Your task to perform on an android device: Open CNN.com Image 0: 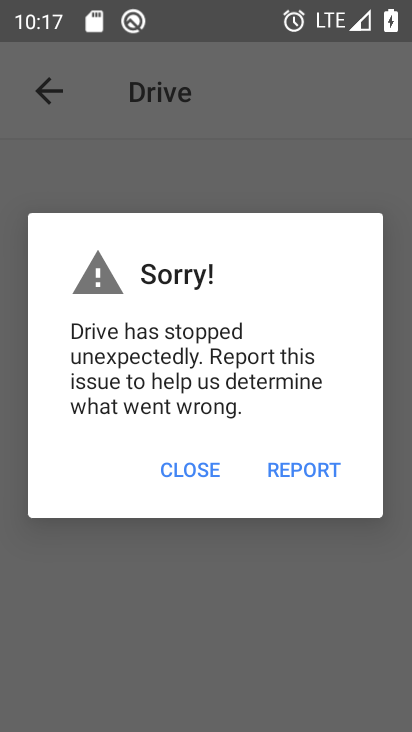
Step 0: press home button
Your task to perform on an android device: Open CNN.com Image 1: 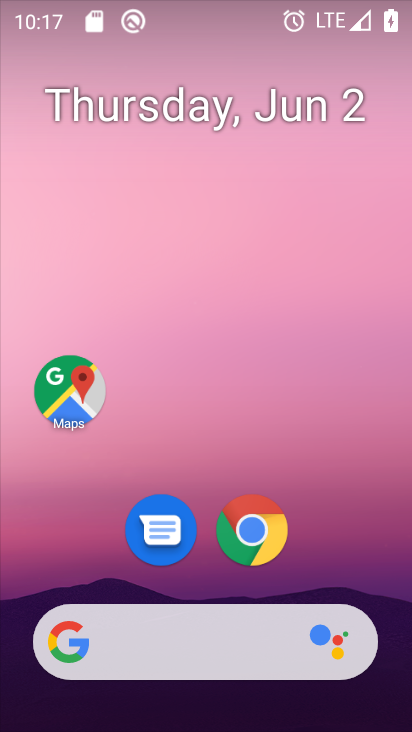
Step 1: drag from (225, 610) to (253, 244)
Your task to perform on an android device: Open CNN.com Image 2: 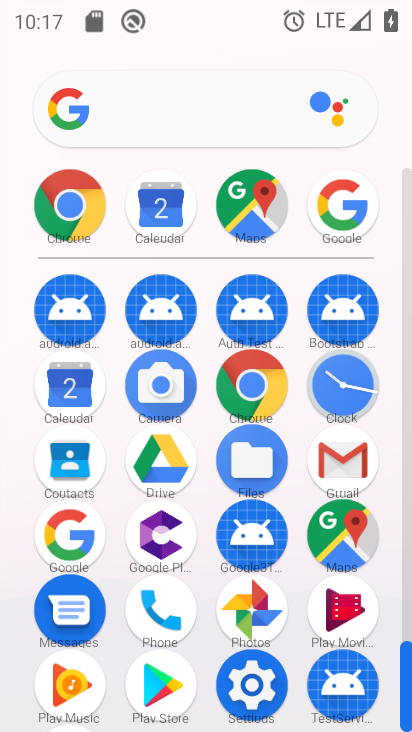
Step 2: click (52, 532)
Your task to perform on an android device: Open CNN.com Image 3: 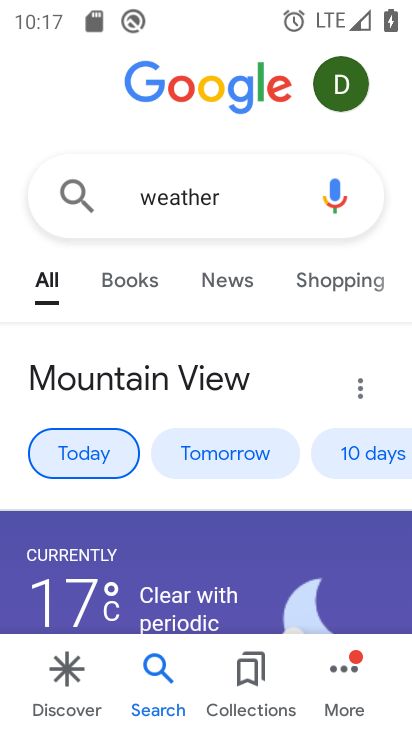
Step 3: click (238, 193)
Your task to perform on an android device: Open CNN.com Image 4: 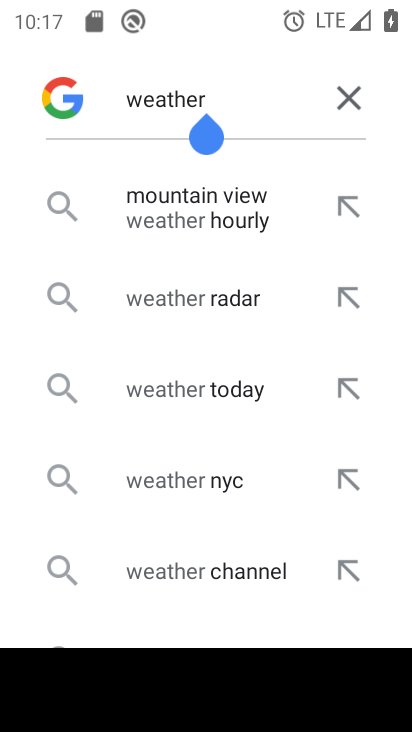
Step 4: click (344, 97)
Your task to perform on an android device: Open CNN.com Image 5: 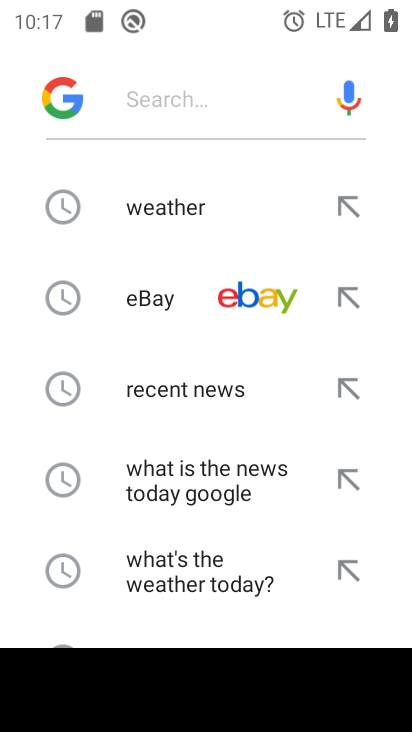
Step 5: drag from (171, 567) to (183, 172)
Your task to perform on an android device: Open CNN.com Image 6: 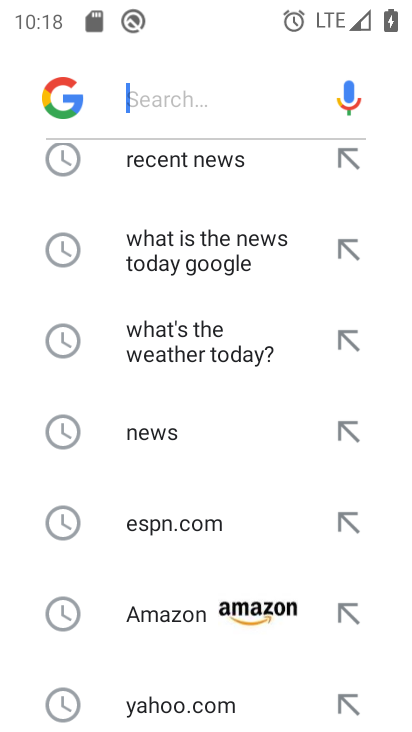
Step 6: drag from (162, 676) to (192, 327)
Your task to perform on an android device: Open CNN.com Image 7: 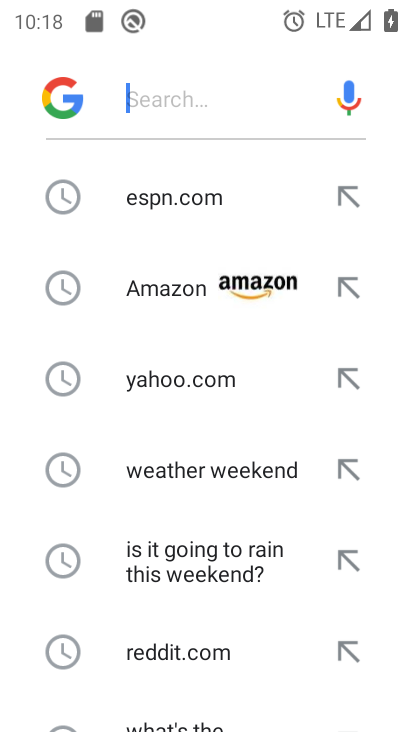
Step 7: drag from (168, 704) to (194, 376)
Your task to perform on an android device: Open CNN.com Image 8: 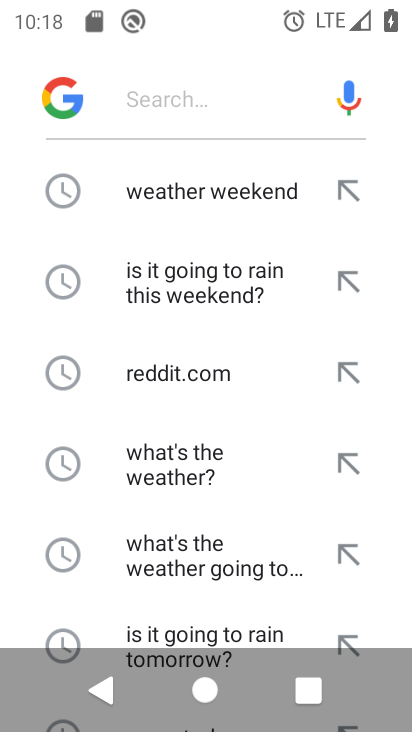
Step 8: drag from (188, 597) to (206, 335)
Your task to perform on an android device: Open CNN.com Image 9: 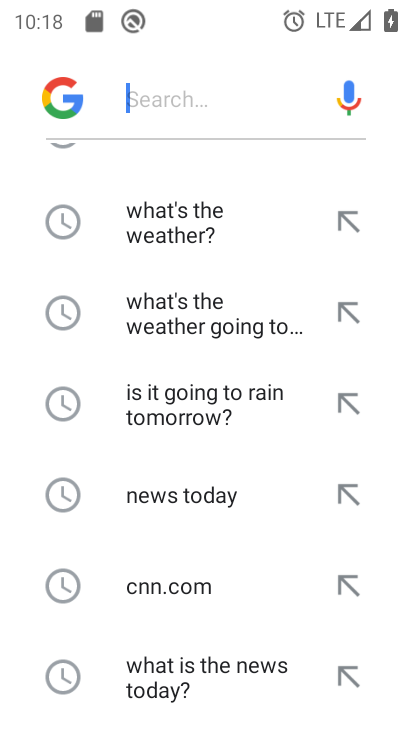
Step 9: click (175, 577)
Your task to perform on an android device: Open CNN.com Image 10: 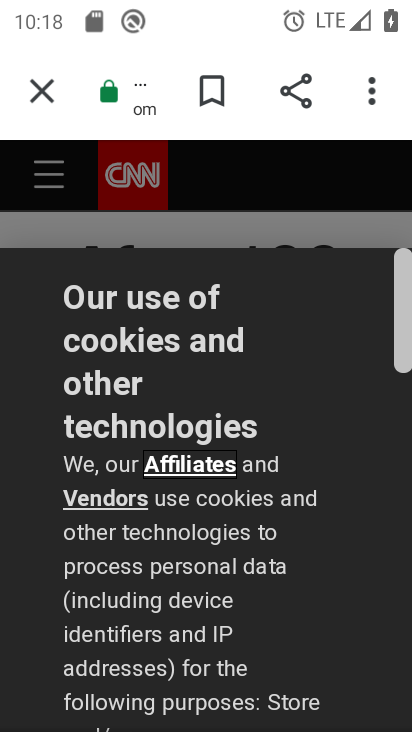
Step 10: task complete